Your task to perform on an android device: turn on data saver in the chrome app Image 0: 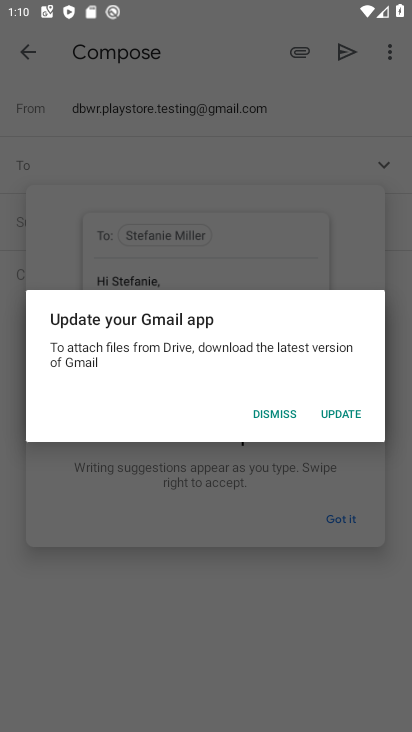
Step 0: click (129, 610)
Your task to perform on an android device: turn on data saver in the chrome app Image 1: 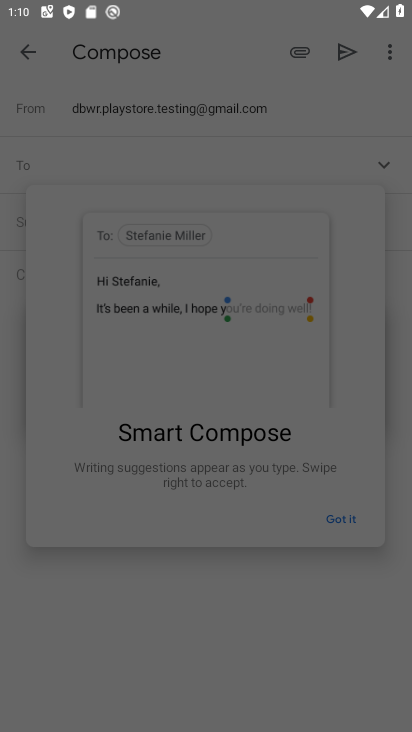
Step 1: press home button
Your task to perform on an android device: turn on data saver in the chrome app Image 2: 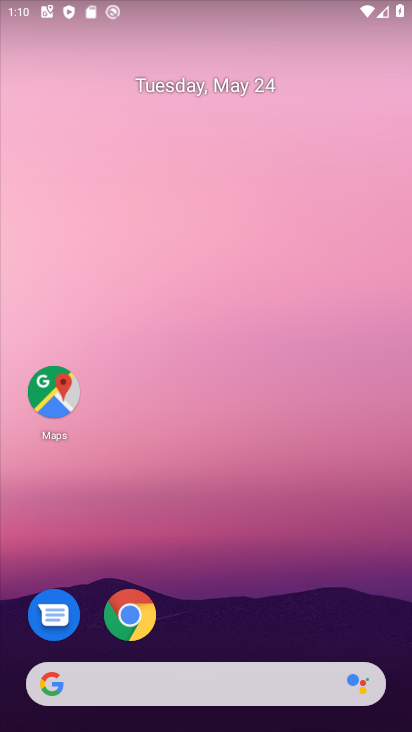
Step 2: click (130, 611)
Your task to perform on an android device: turn on data saver in the chrome app Image 3: 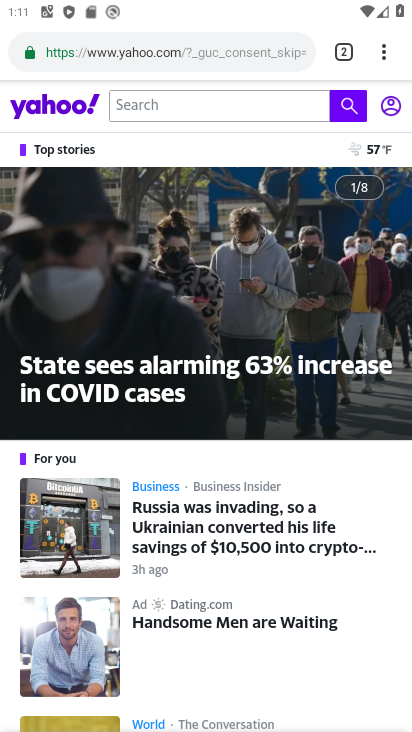
Step 3: click (382, 51)
Your task to perform on an android device: turn on data saver in the chrome app Image 4: 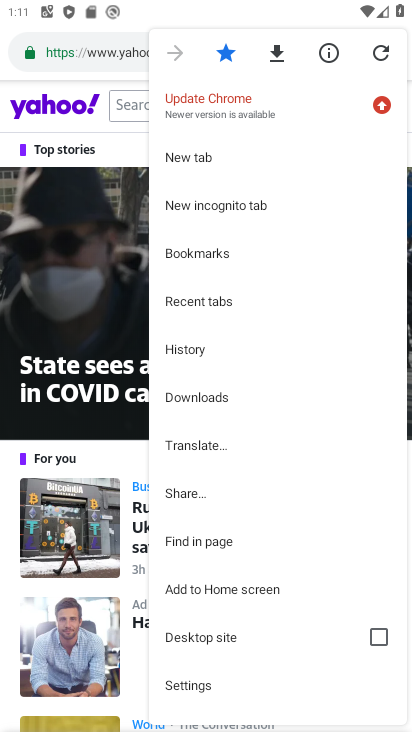
Step 4: click (225, 681)
Your task to perform on an android device: turn on data saver in the chrome app Image 5: 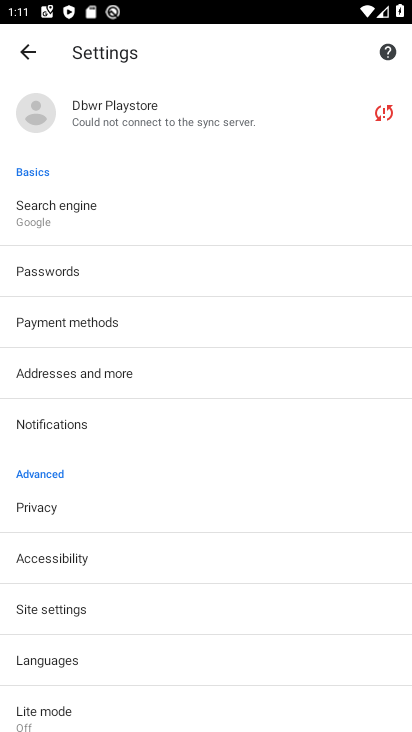
Step 5: click (84, 708)
Your task to perform on an android device: turn on data saver in the chrome app Image 6: 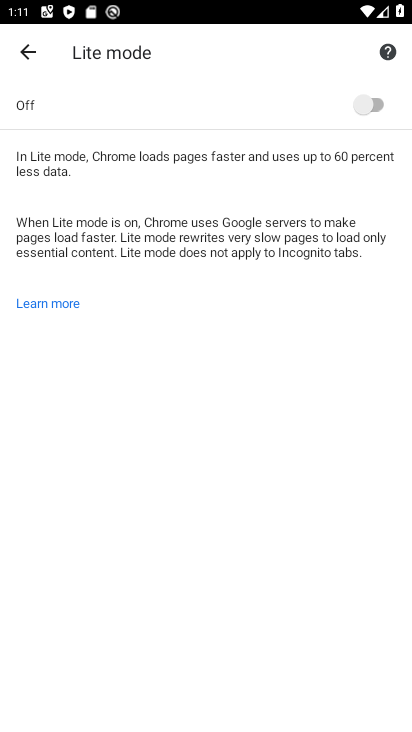
Step 6: click (367, 100)
Your task to perform on an android device: turn on data saver in the chrome app Image 7: 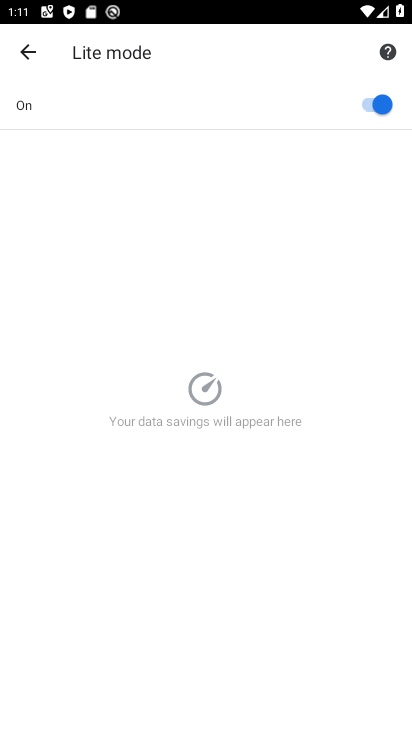
Step 7: task complete